Your task to perform on an android device: Open settings on Google Maps Image 0: 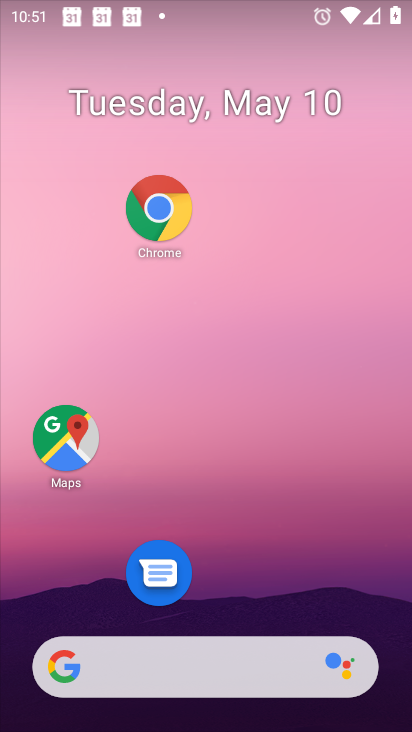
Step 0: drag from (278, 704) to (314, 328)
Your task to perform on an android device: Open settings on Google Maps Image 1: 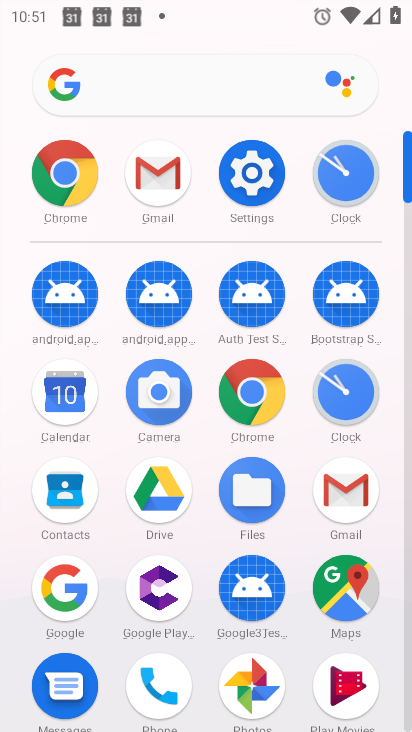
Step 1: click (331, 571)
Your task to perform on an android device: Open settings on Google Maps Image 2: 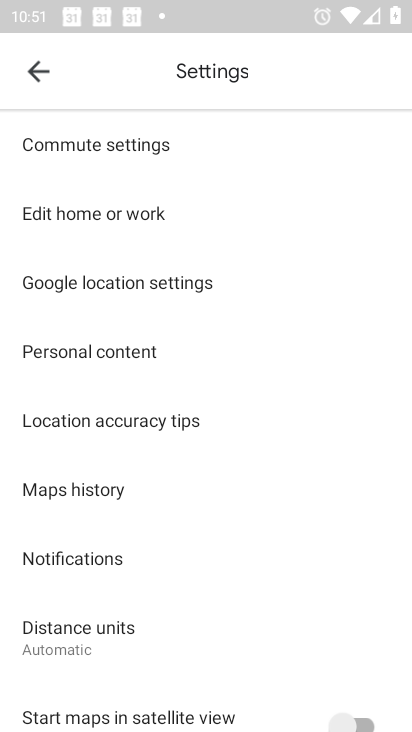
Step 2: click (48, 82)
Your task to perform on an android device: Open settings on Google Maps Image 3: 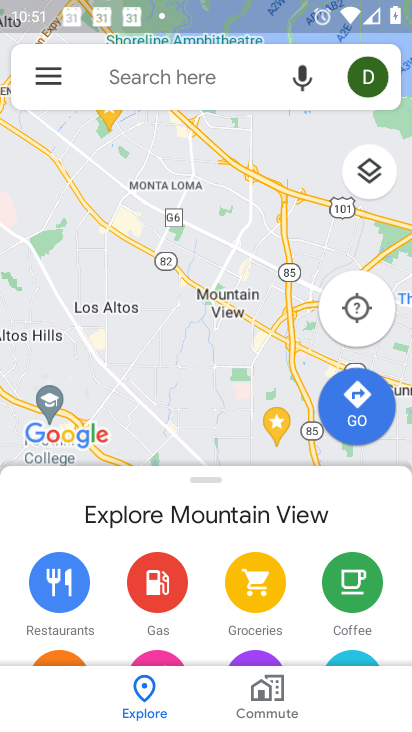
Step 3: click (58, 84)
Your task to perform on an android device: Open settings on Google Maps Image 4: 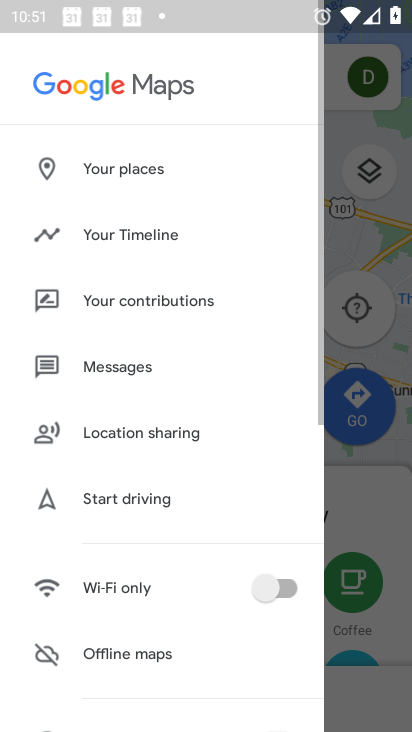
Step 4: drag from (101, 634) to (143, 446)
Your task to perform on an android device: Open settings on Google Maps Image 5: 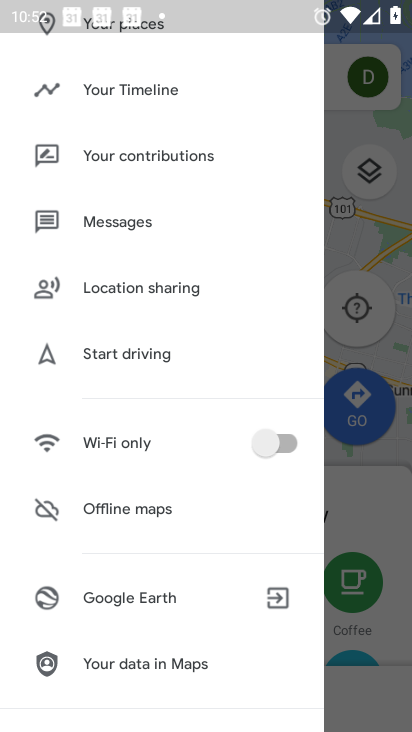
Step 5: drag from (124, 620) to (151, 429)
Your task to perform on an android device: Open settings on Google Maps Image 6: 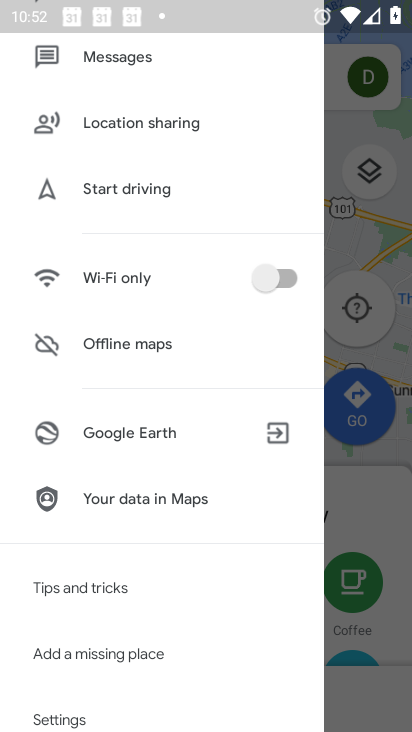
Step 6: click (129, 588)
Your task to perform on an android device: Open settings on Google Maps Image 7: 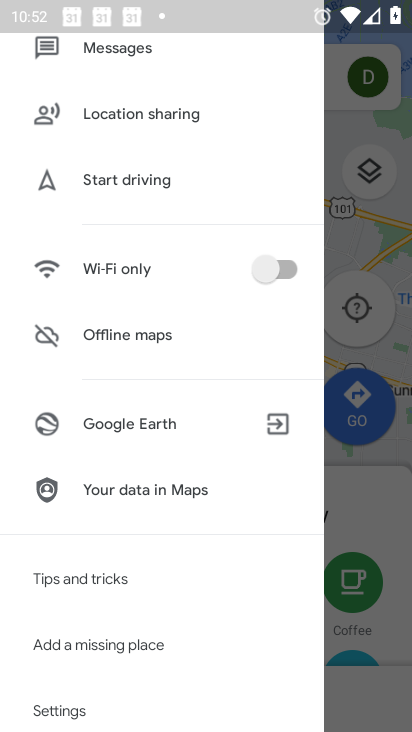
Step 7: click (74, 708)
Your task to perform on an android device: Open settings on Google Maps Image 8: 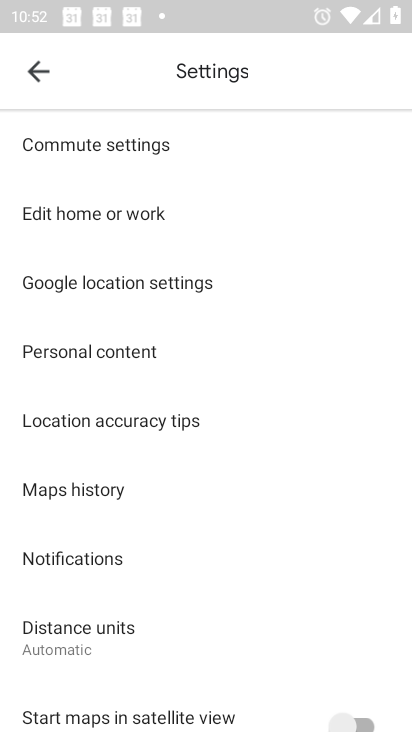
Step 8: task complete